Your task to perform on an android device: Open Youtube and go to the subscriptions tab Image 0: 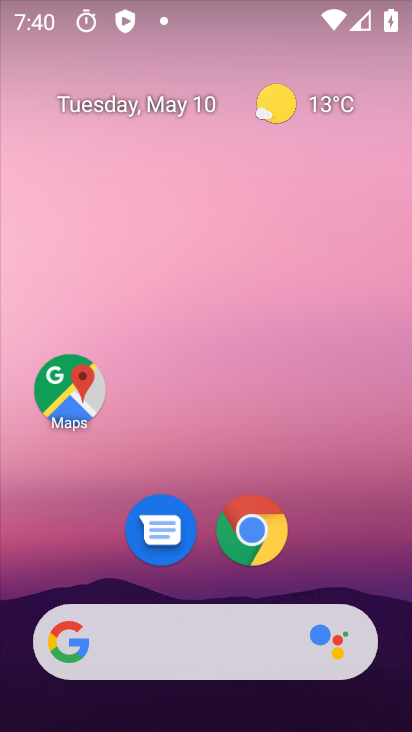
Step 0: drag from (363, 552) to (326, 10)
Your task to perform on an android device: Open Youtube and go to the subscriptions tab Image 1: 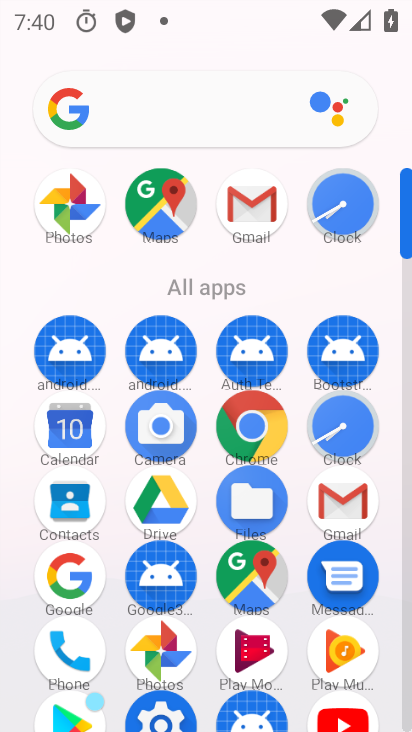
Step 1: drag from (299, 623) to (308, 285)
Your task to perform on an android device: Open Youtube and go to the subscriptions tab Image 2: 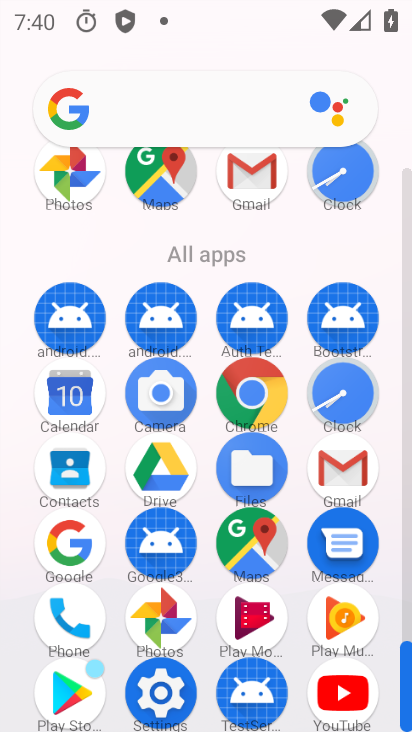
Step 2: click (353, 695)
Your task to perform on an android device: Open Youtube and go to the subscriptions tab Image 3: 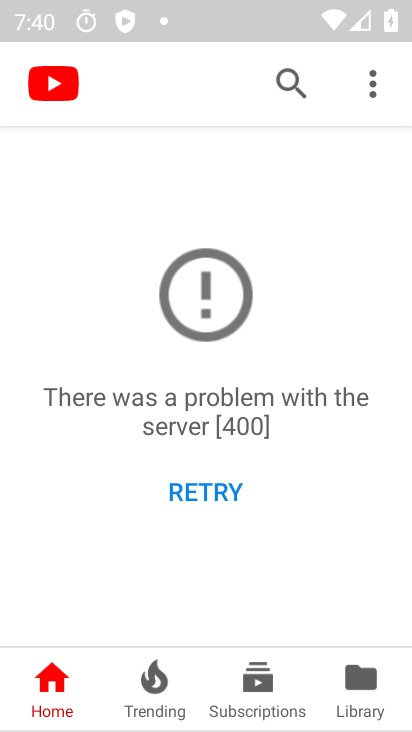
Step 3: click (248, 675)
Your task to perform on an android device: Open Youtube and go to the subscriptions tab Image 4: 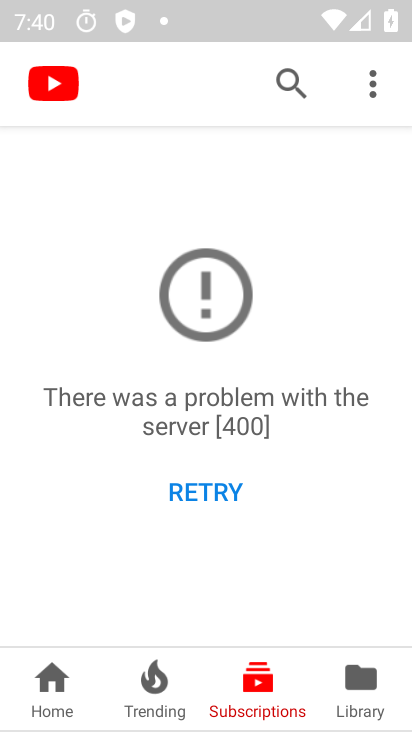
Step 4: task complete